Your task to perform on an android device: Go to location settings Image 0: 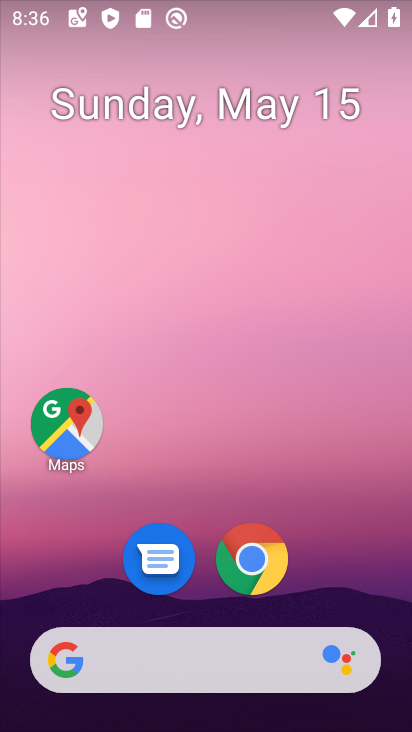
Step 0: drag from (351, 590) to (296, 56)
Your task to perform on an android device: Go to location settings Image 1: 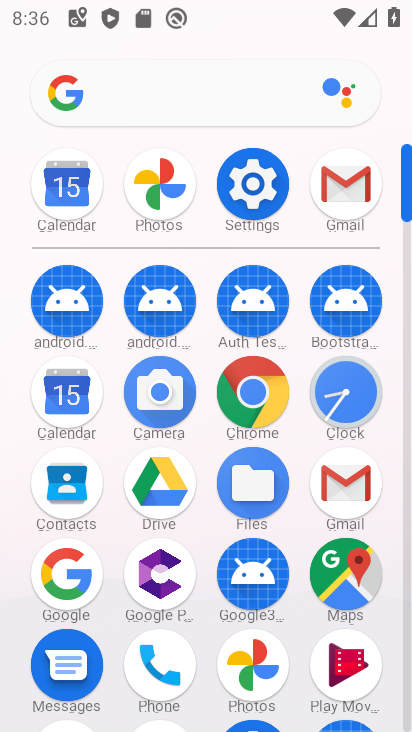
Step 1: click (242, 156)
Your task to perform on an android device: Go to location settings Image 2: 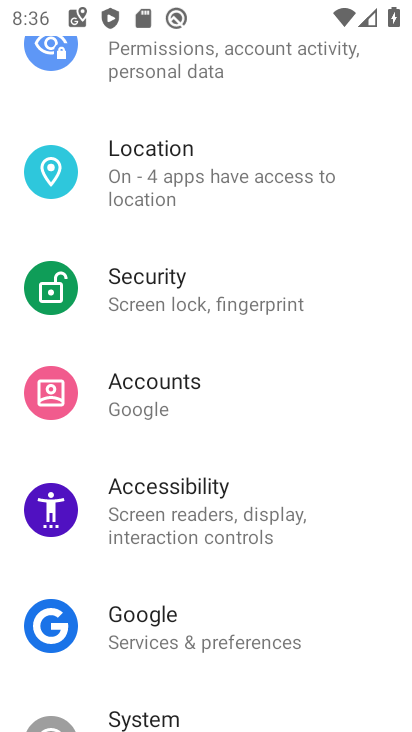
Step 2: click (249, 167)
Your task to perform on an android device: Go to location settings Image 3: 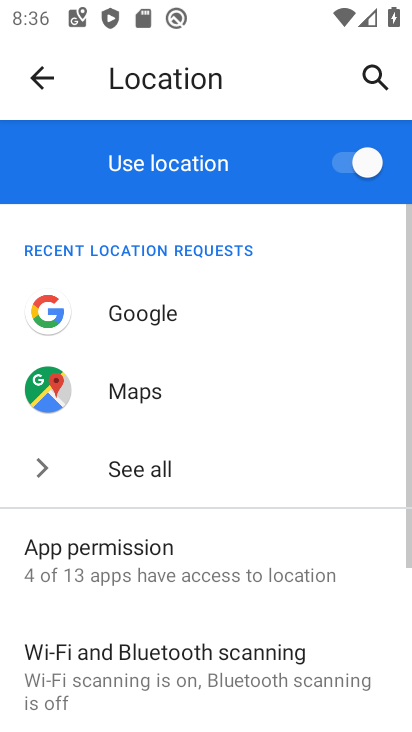
Step 3: task complete